Your task to perform on an android device: Show the shopping cart on costco.com. Search for "dell xps" on costco.com, select the first entry, add it to the cart, then select checkout. Image 0: 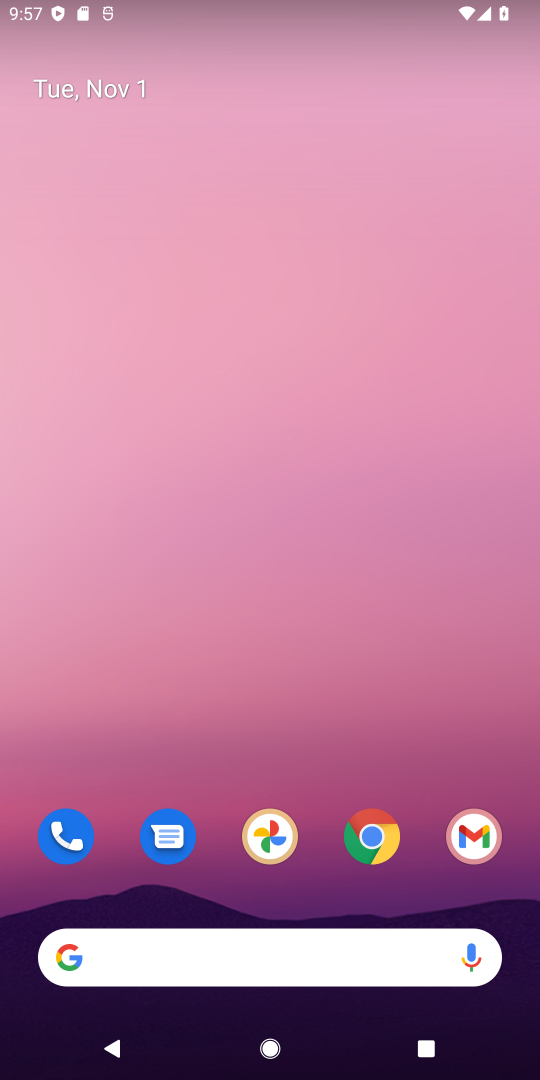
Step 0: click (387, 839)
Your task to perform on an android device: Show the shopping cart on costco.com. Search for "dell xps" on costco.com, select the first entry, add it to the cart, then select checkout. Image 1: 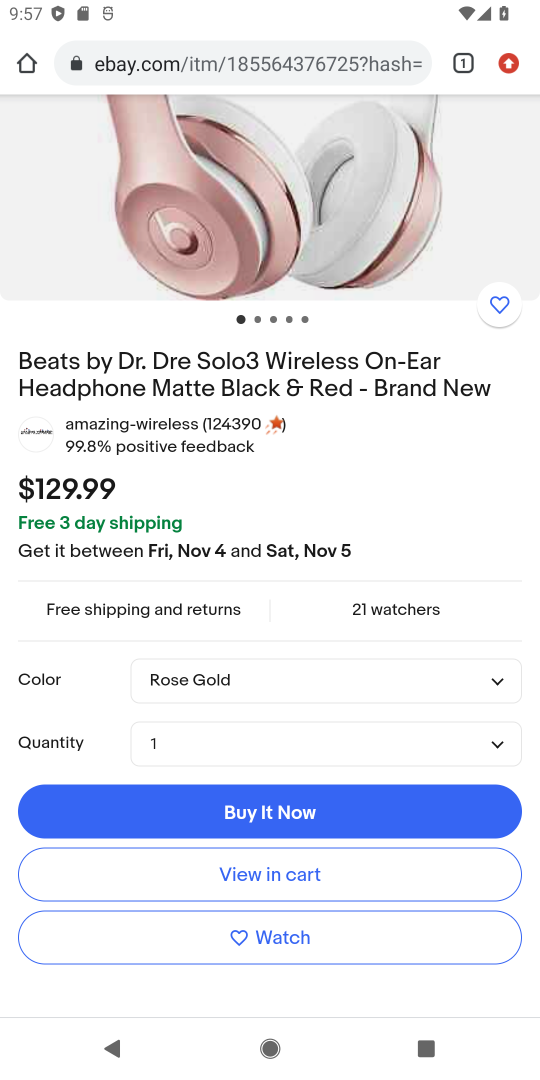
Step 1: click (147, 62)
Your task to perform on an android device: Show the shopping cart on costco.com. Search for "dell xps" on costco.com, select the first entry, add it to the cart, then select checkout. Image 2: 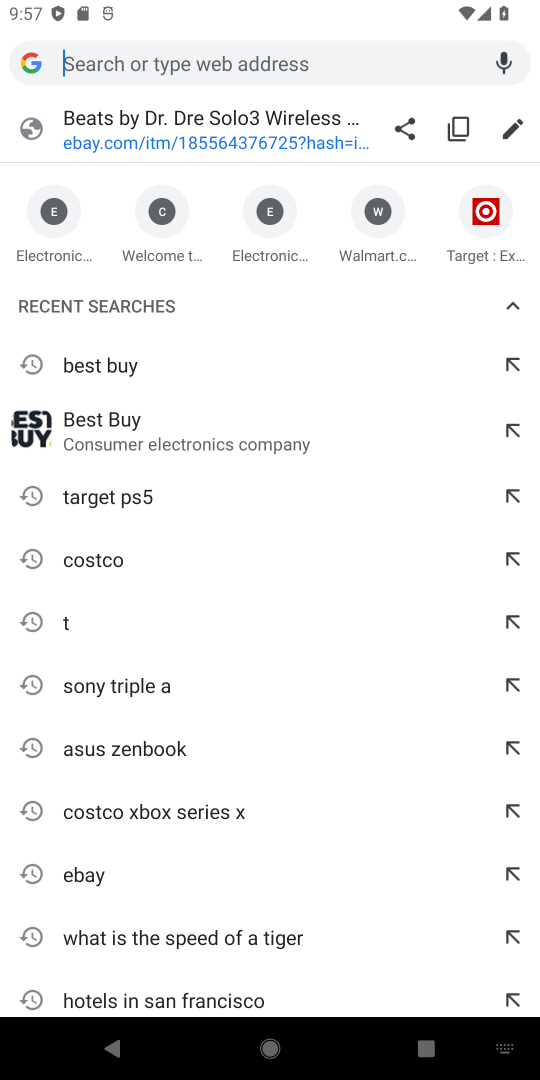
Step 2: type "costco.com"
Your task to perform on an android device: Show the shopping cart on costco.com. Search for "dell xps" on costco.com, select the first entry, add it to the cart, then select checkout. Image 3: 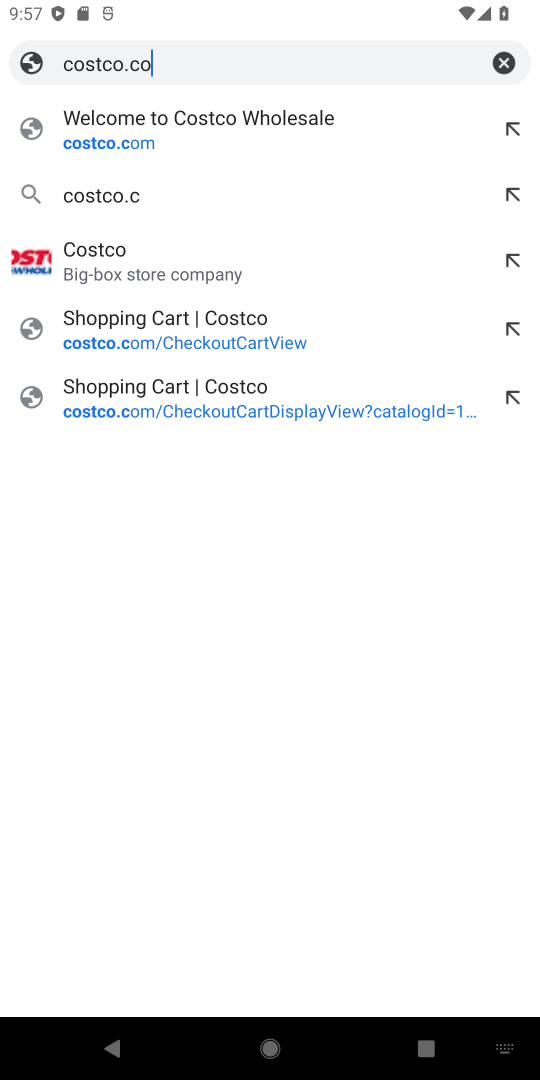
Step 3: type ""
Your task to perform on an android device: Show the shopping cart on costco.com. Search for "dell xps" on costco.com, select the first entry, add it to the cart, then select checkout. Image 4: 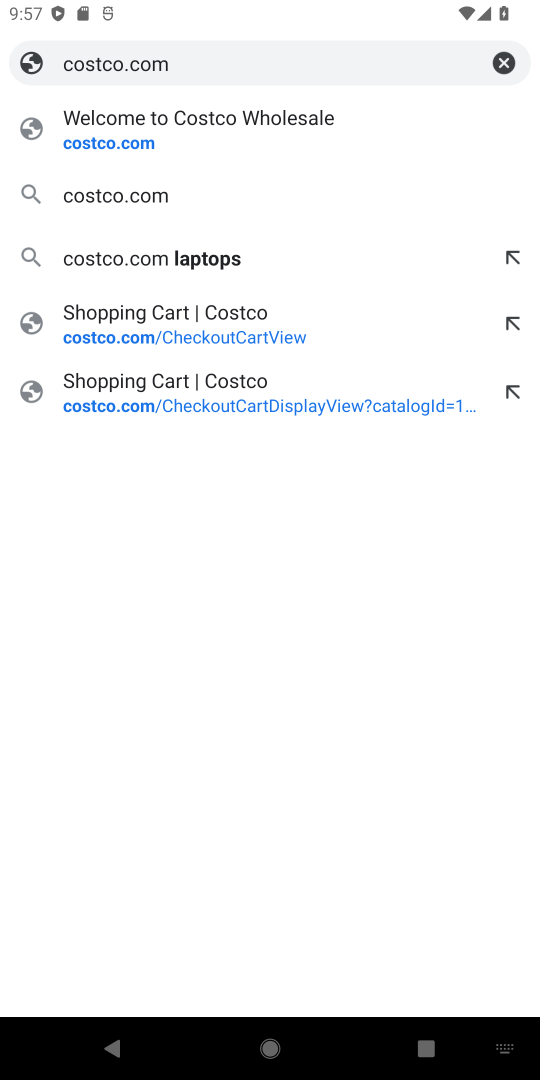
Step 4: click (179, 133)
Your task to perform on an android device: Show the shopping cart on costco.com. Search for "dell xps" on costco.com, select the first entry, add it to the cart, then select checkout. Image 5: 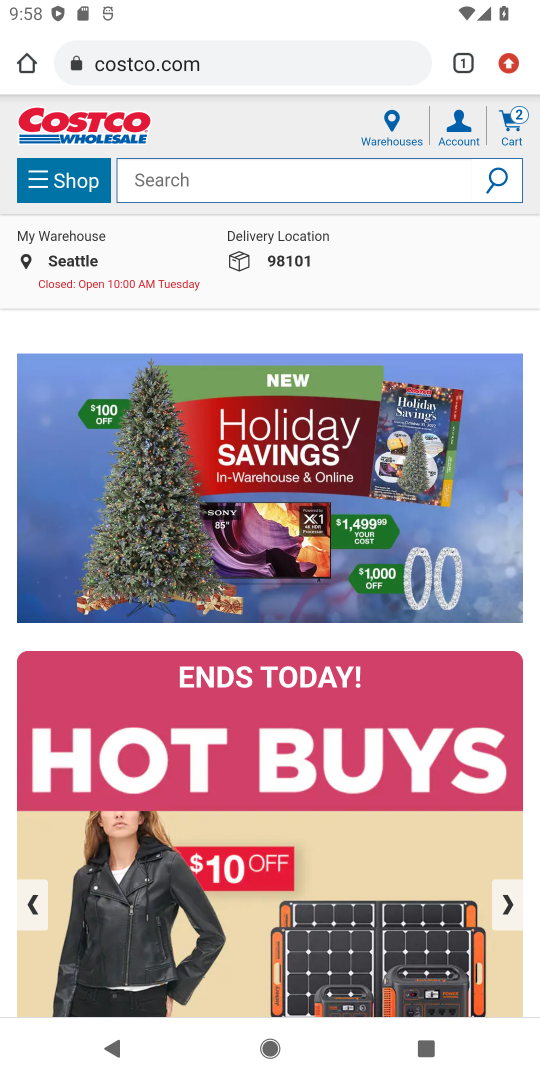
Step 5: click (238, 180)
Your task to perform on an android device: Show the shopping cart on costco.com. Search for "dell xps" on costco.com, select the first entry, add it to the cart, then select checkout. Image 6: 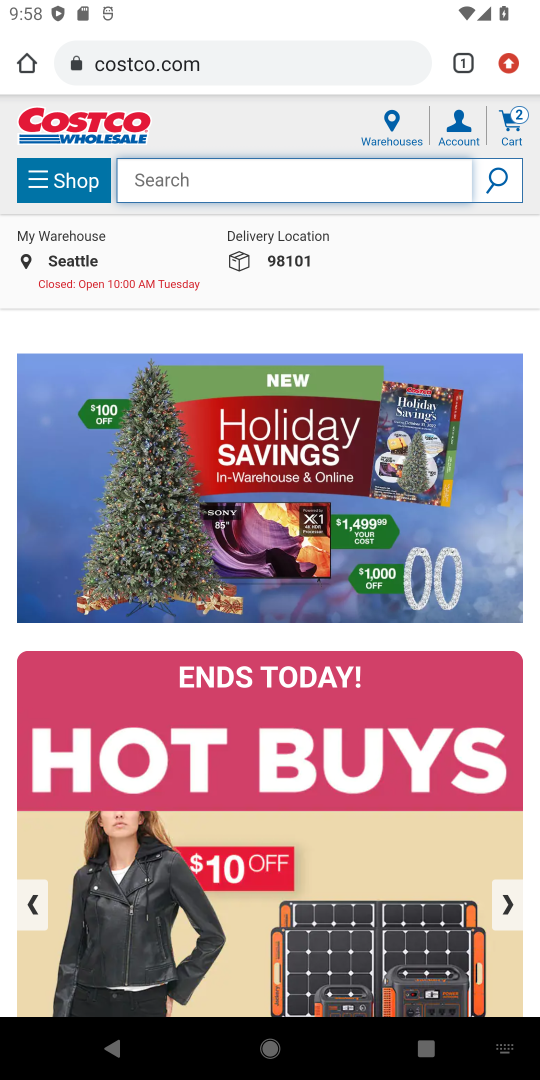
Step 6: type "dell xps"
Your task to perform on an android device: Show the shopping cart on costco.com. Search for "dell xps" on costco.com, select the first entry, add it to the cart, then select checkout. Image 7: 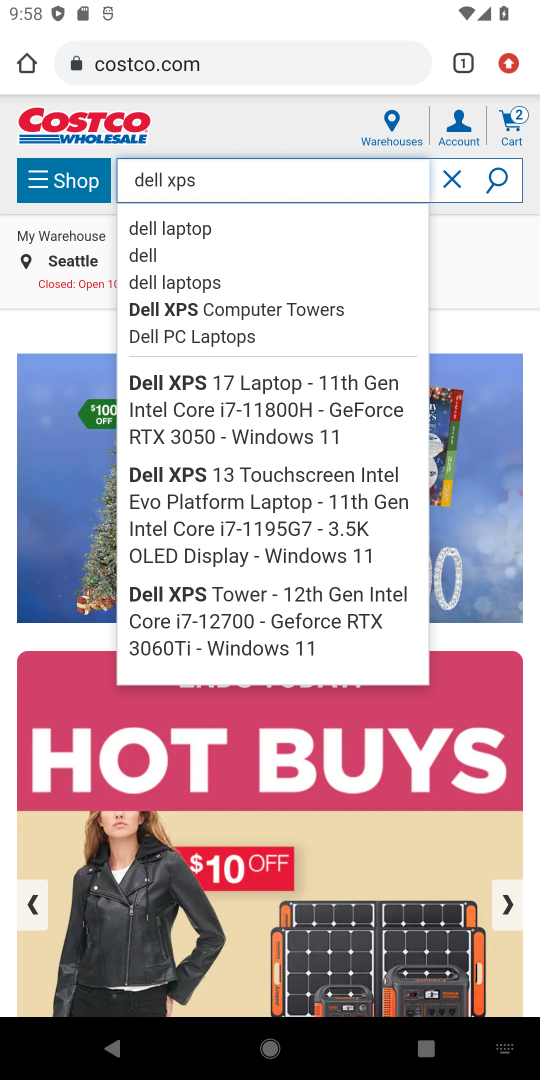
Step 7: click (266, 416)
Your task to perform on an android device: Show the shopping cart on costco.com. Search for "dell xps" on costco.com, select the first entry, add it to the cart, then select checkout. Image 8: 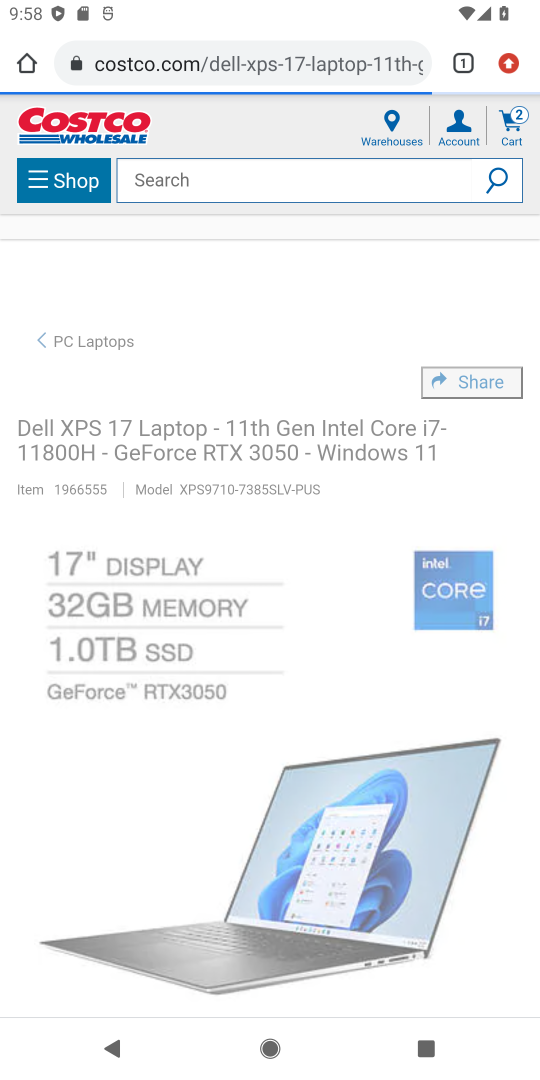
Step 8: drag from (386, 846) to (355, 291)
Your task to perform on an android device: Show the shopping cart on costco.com. Search for "dell xps" on costco.com, select the first entry, add it to the cart, then select checkout. Image 9: 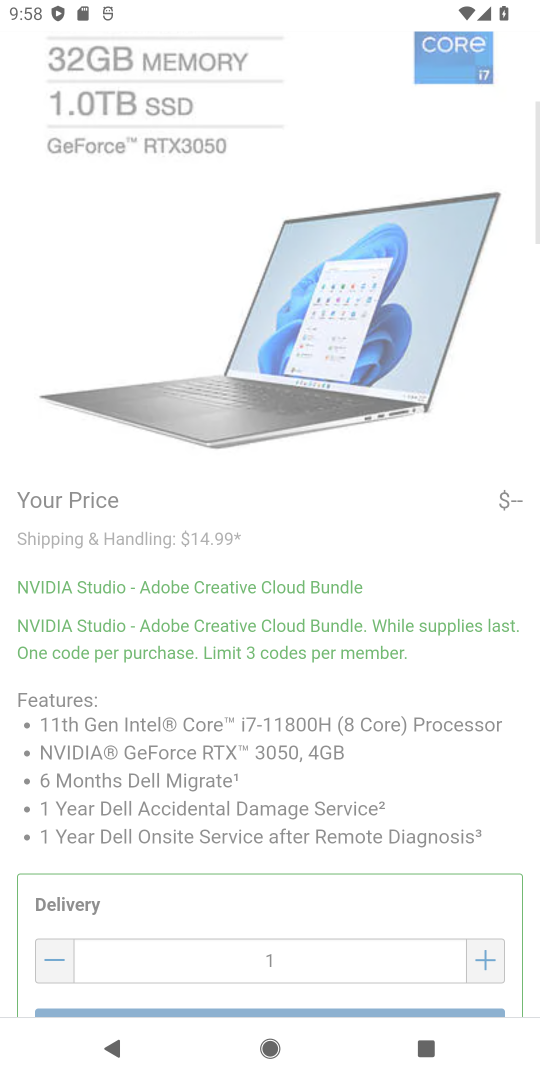
Step 9: drag from (385, 641) to (365, 534)
Your task to perform on an android device: Show the shopping cart on costco.com. Search for "dell xps" on costco.com, select the first entry, add it to the cart, then select checkout. Image 10: 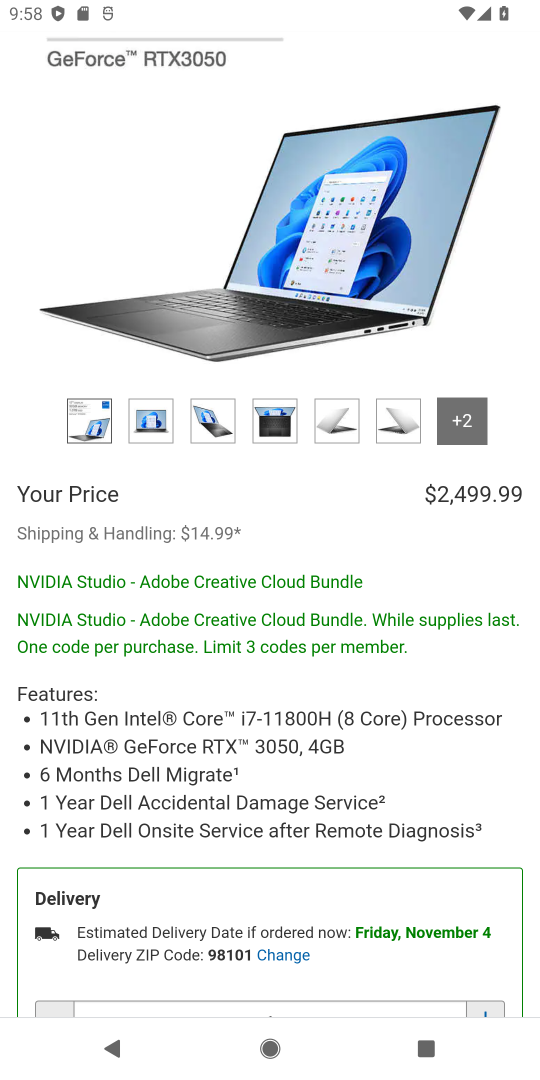
Step 10: drag from (343, 951) to (283, 600)
Your task to perform on an android device: Show the shopping cart on costco.com. Search for "dell xps" on costco.com, select the first entry, add it to the cart, then select checkout. Image 11: 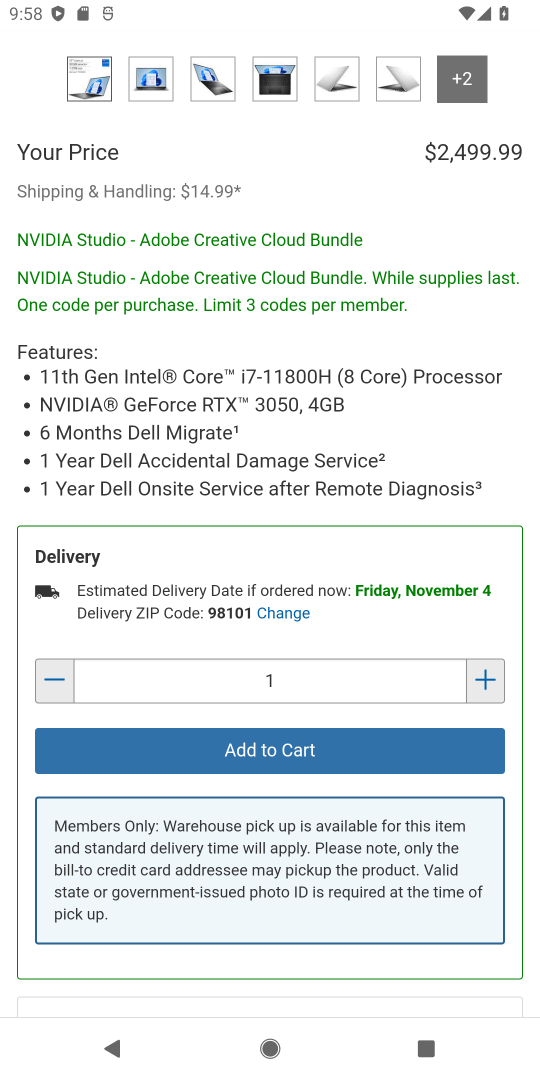
Step 11: click (282, 729)
Your task to perform on an android device: Show the shopping cart on costco.com. Search for "dell xps" on costco.com, select the first entry, add it to the cart, then select checkout. Image 12: 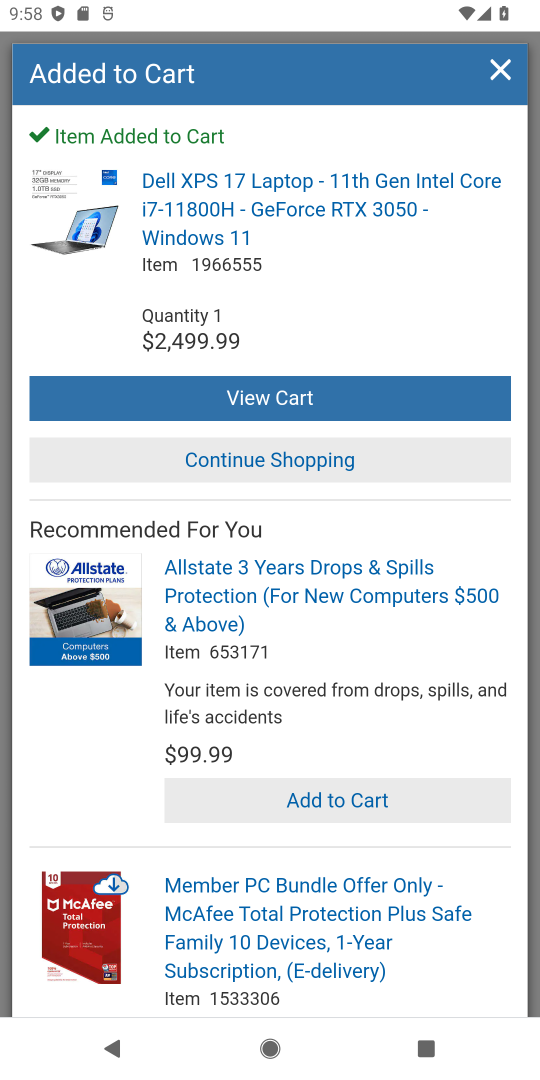
Step 12: click (254, 407)
Your task to perform on an android device: Show the shopping cart on costco.com. Search for "dell xps" on costco.com, select the first entry, add it to the cart, then select checkout. Image 13: 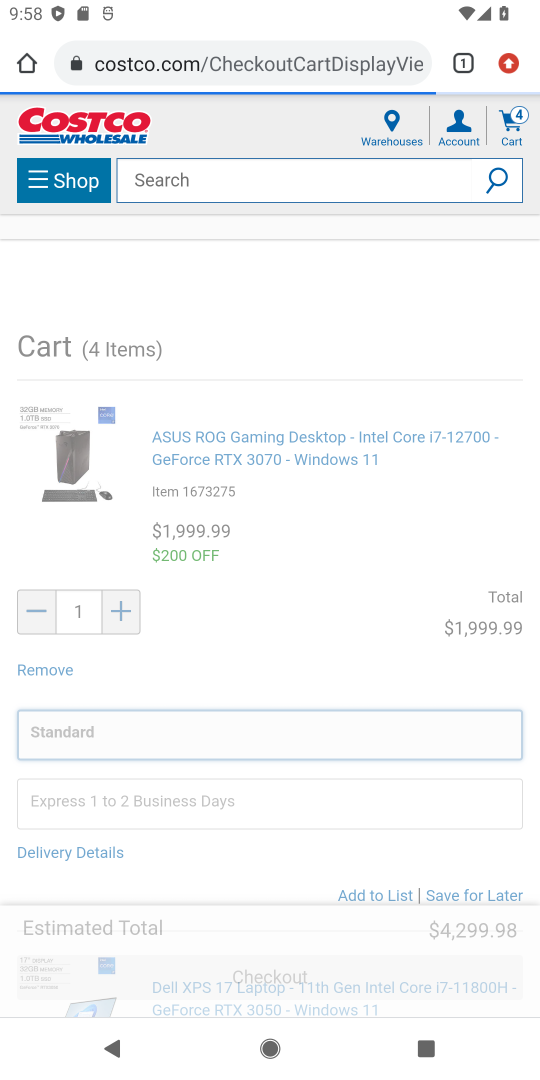
Step 13: drag from (259, 879) to (278, 448)
Your task to perform on an android device: Show the shopping cart on costco.com. Search for "dell xps" on costco.com, select the first entry, add it to the cart, then select checkout. Image 14: 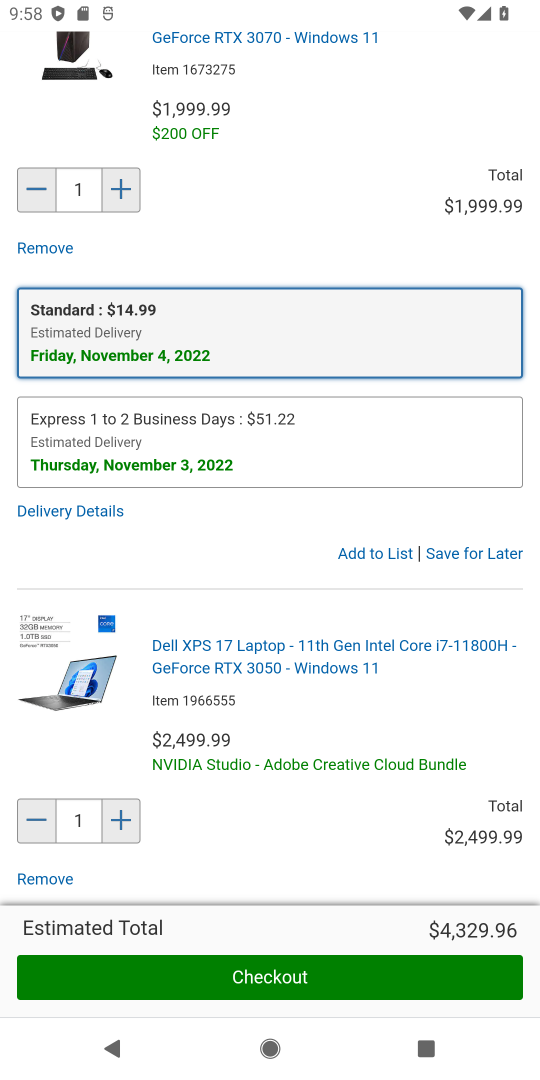
Step 14: click (301, 966)
Your task to perform on an android device: Show the shopping cart on costco.com. Search for "dell xps" on costco.com, select the first entry, add it to the cart, then select checkout. Image 15: 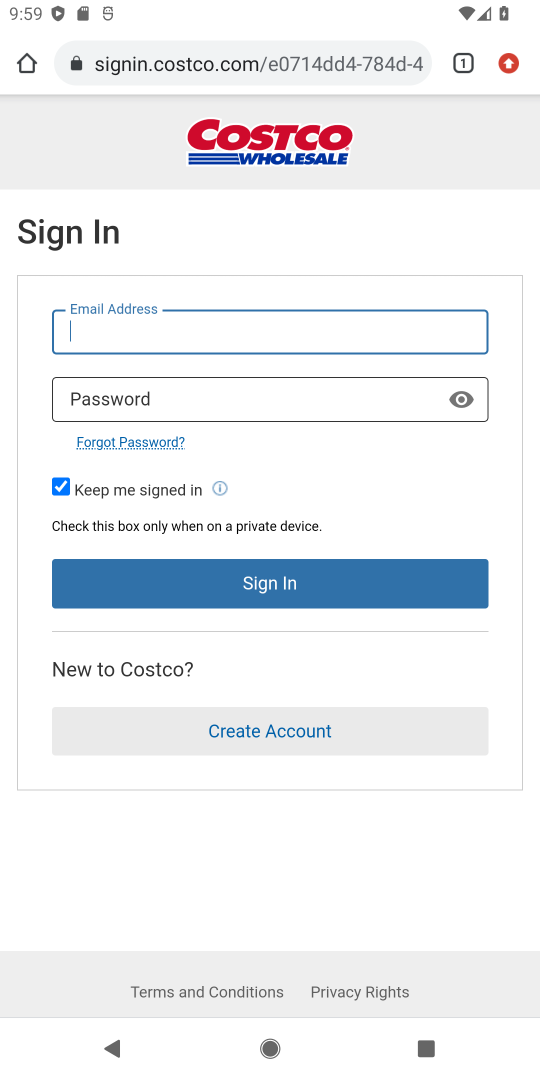
Step 15: task complete